Your task to perform on an android device: empty trash in google photos Image 0: 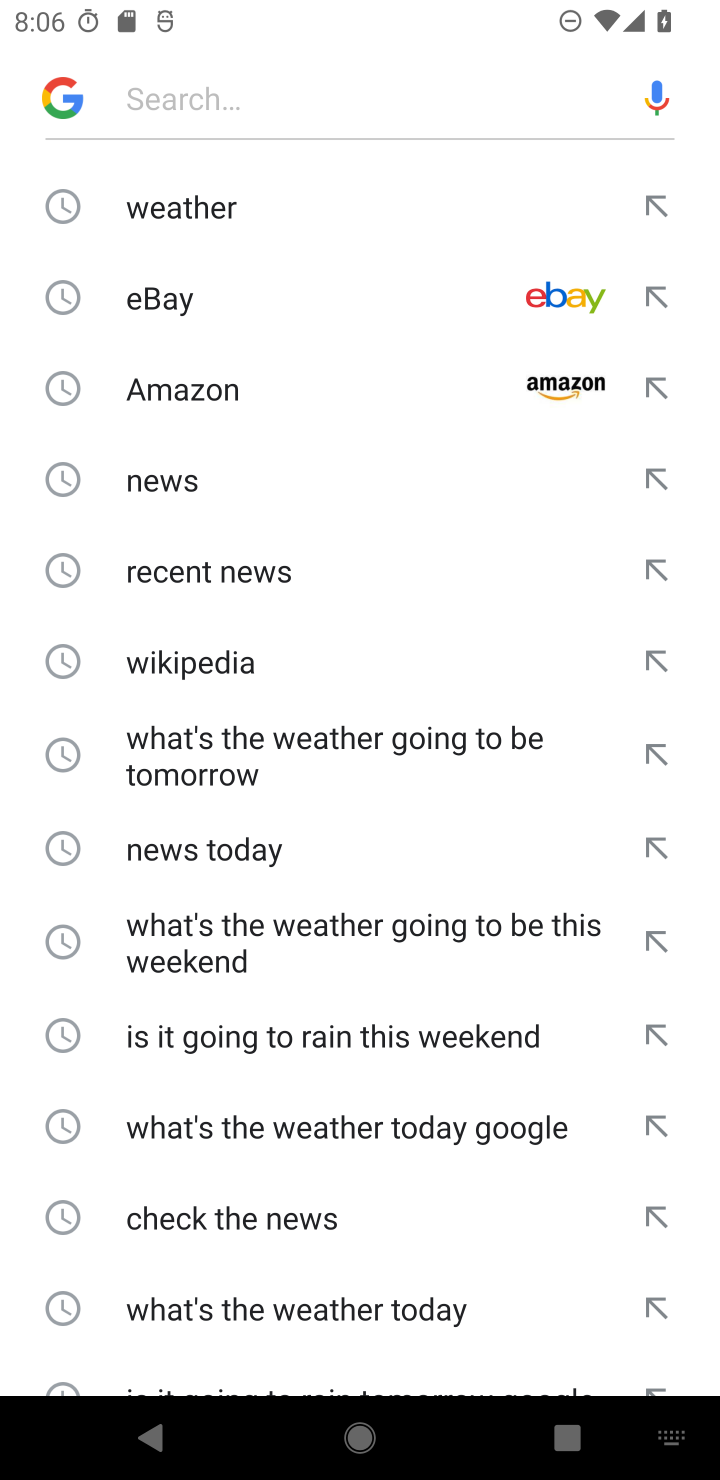
Step 0: press home button
Your task to perform on an android device: empty trash in google photos Image 1: 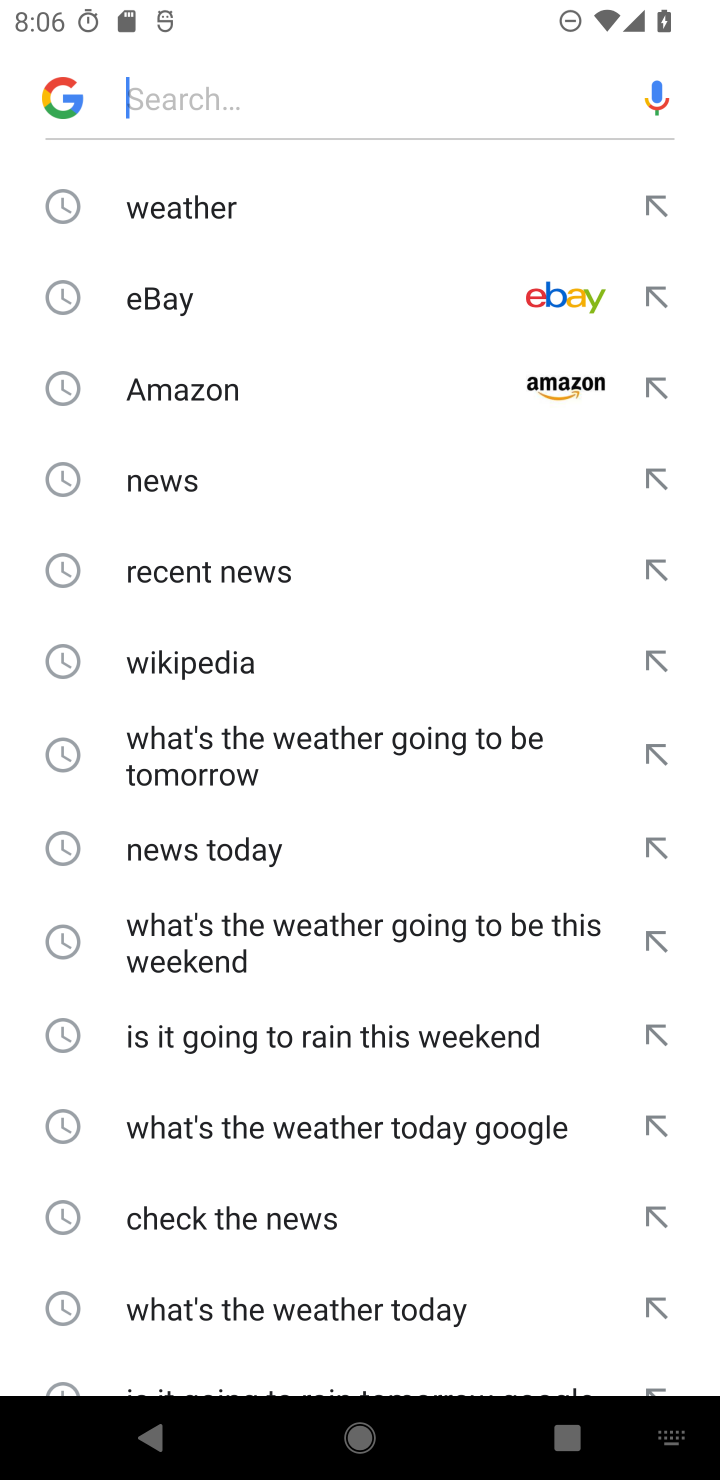
Step 1: press home button
Your task to perform on an android device: empty trash in google photos Image 2: 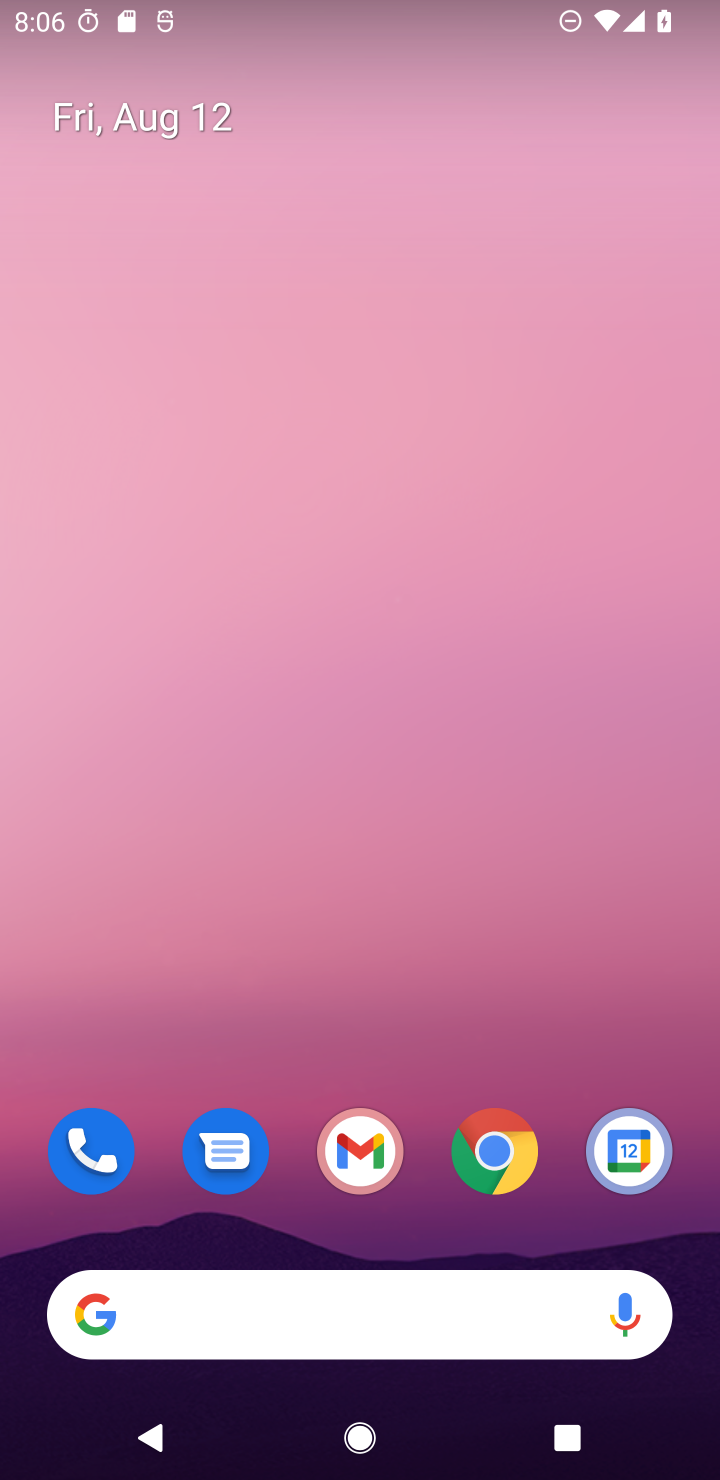
Step 2: drag from (441, 909) to (414, 19)
Your task to perform on an android device: empty trash in google photos Image 3: 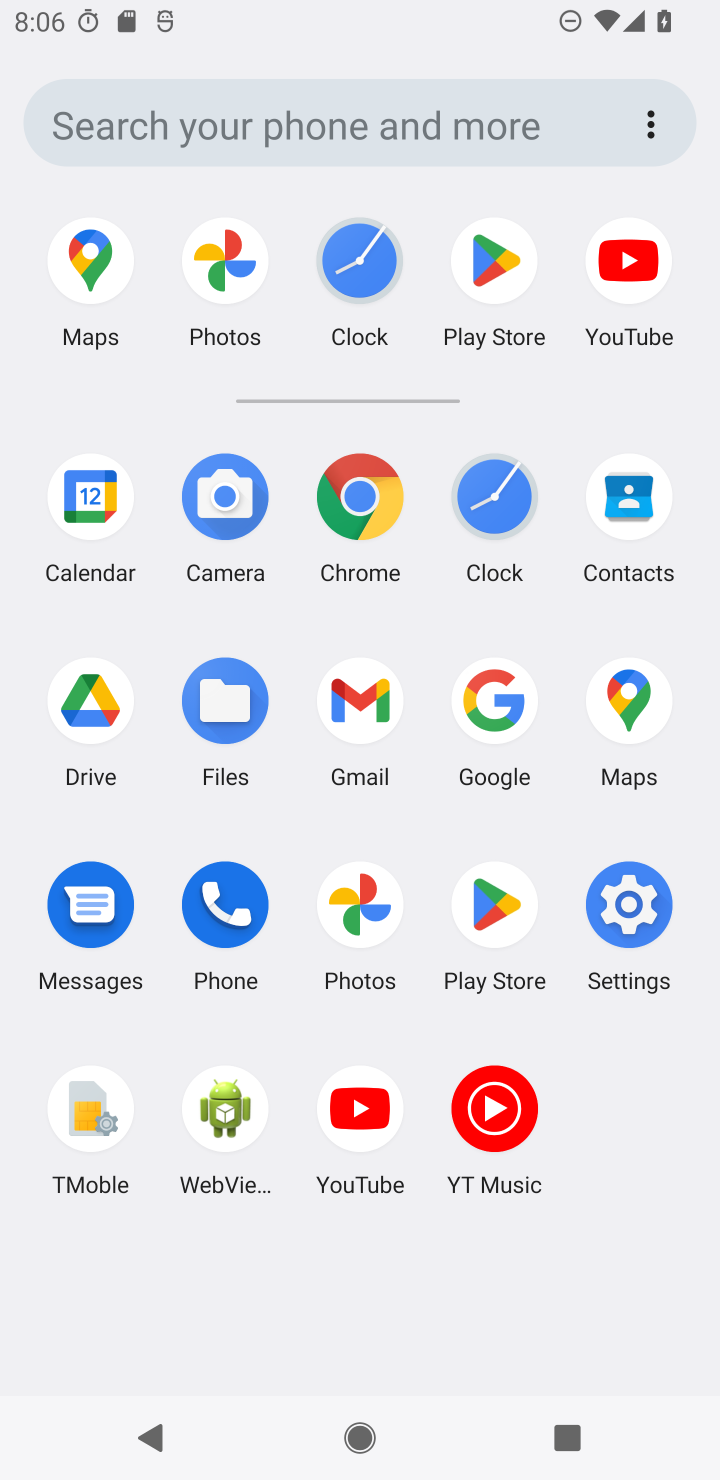
Step 3: click (371, 905)
Your task to perform on an android device: empty trash in google photos Image 4: 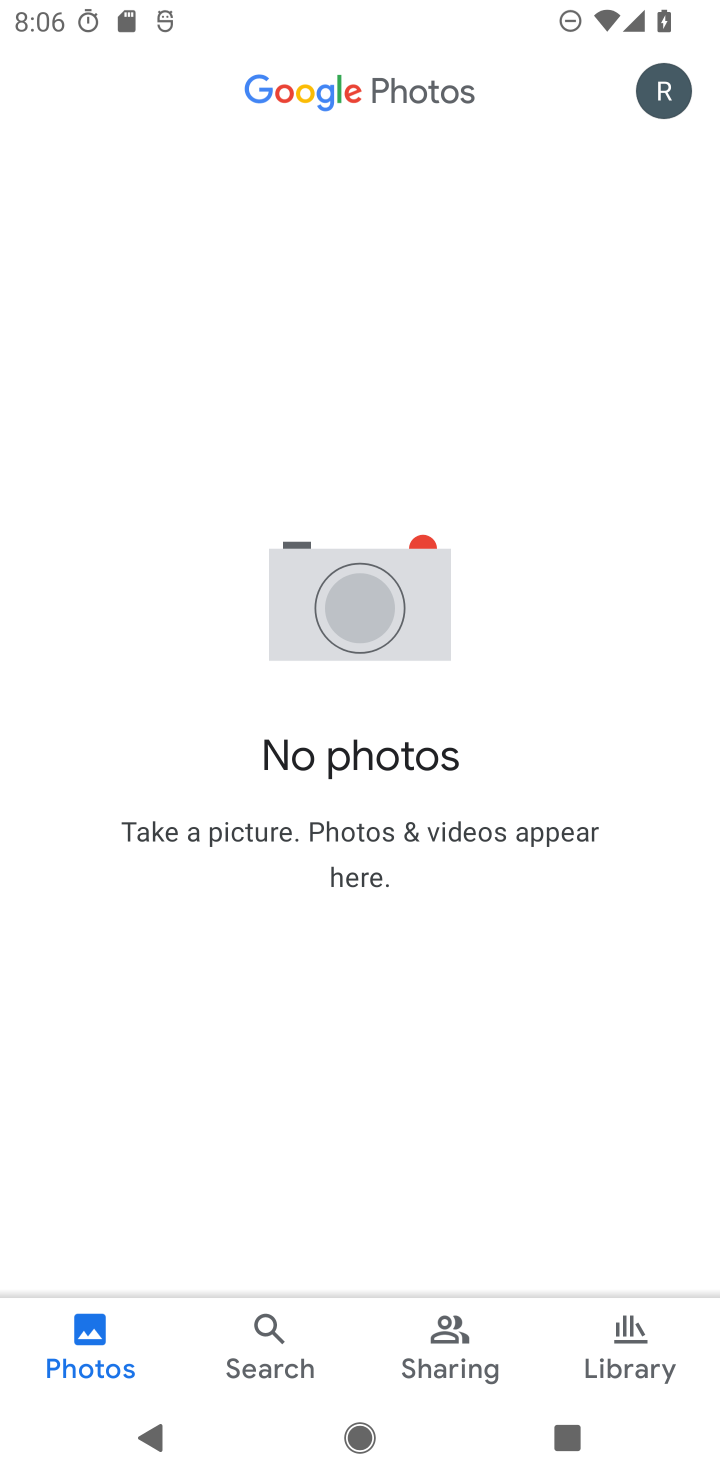
Step 4: click (632, 1343)
Your task to perform on an android device: empty trash in google photos Image 5: 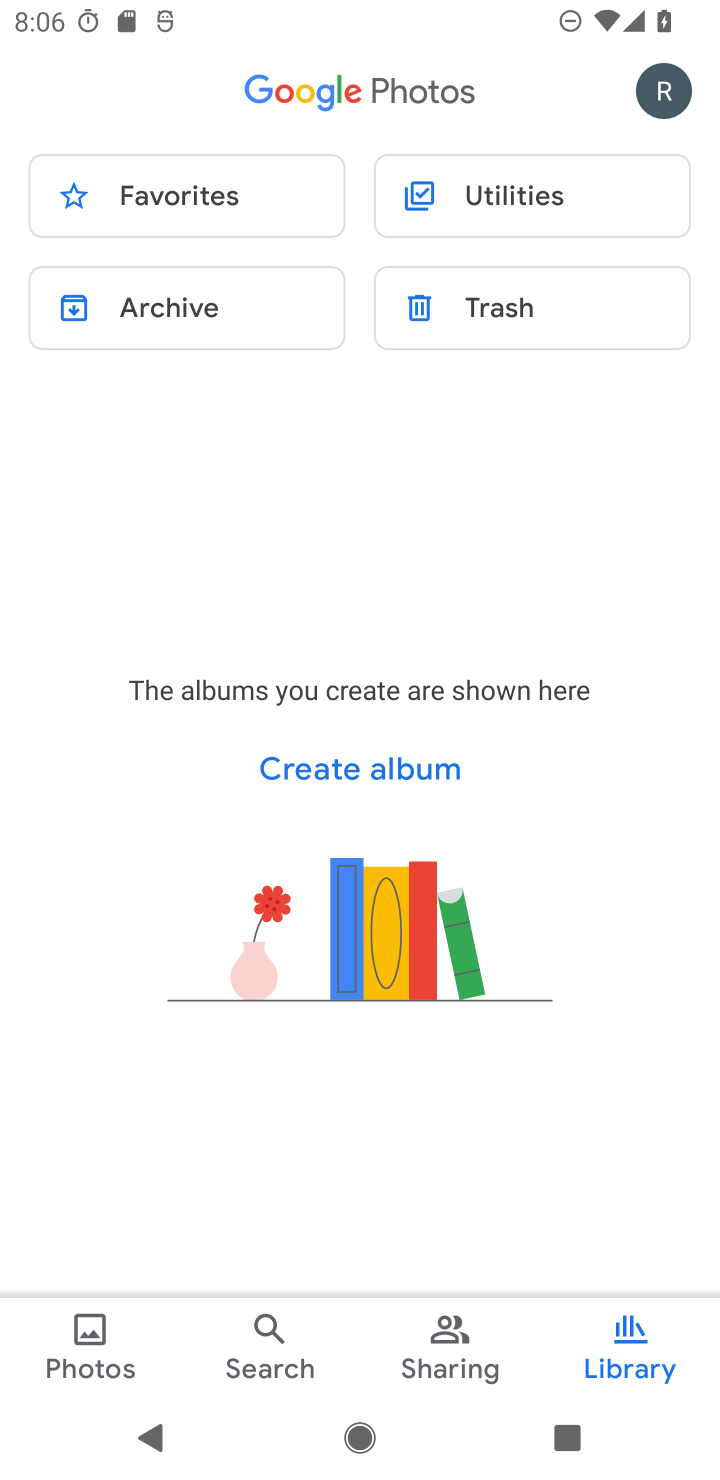
Step 5: click (543, 262)
Your task to perform on an android device: empty trash in google photos Image 6: 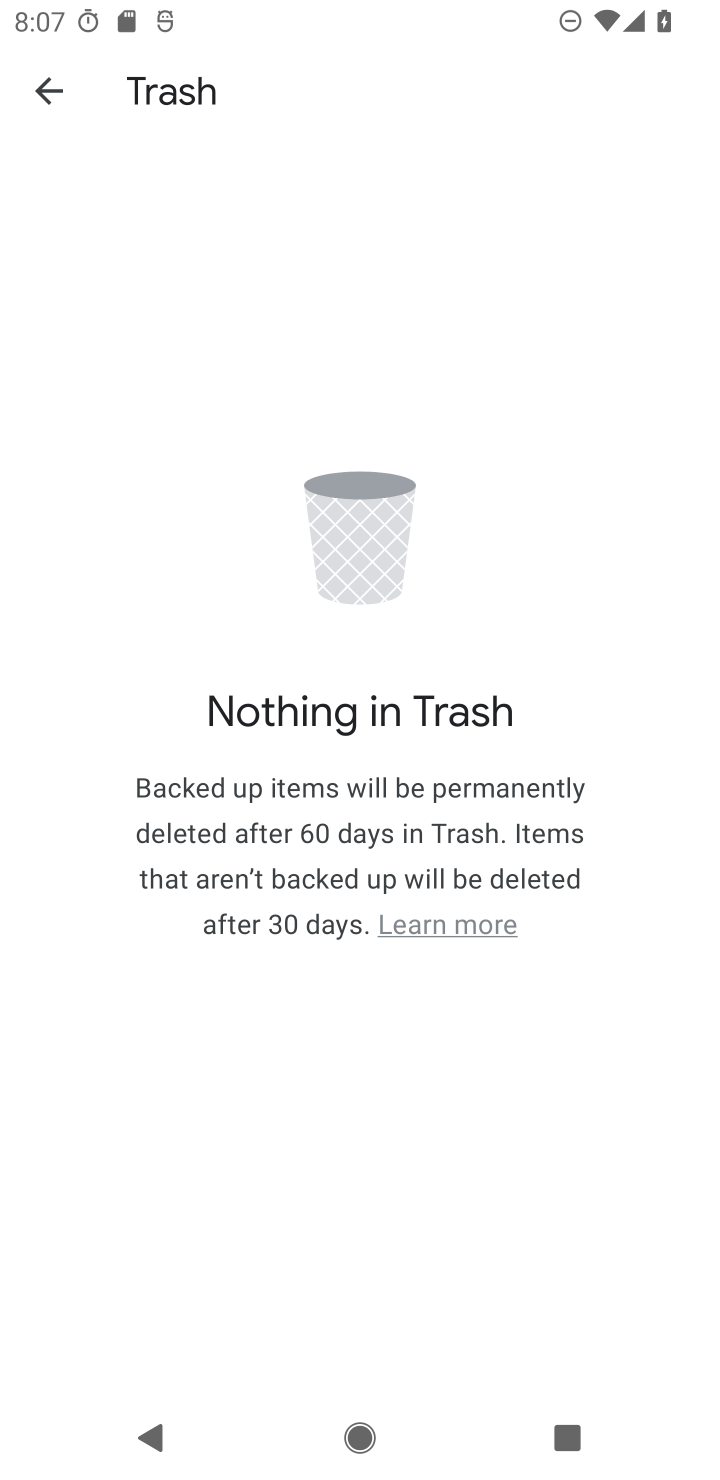
Step 6: task complete